Your task to perform on an android device: Go to Google maps Image 0: 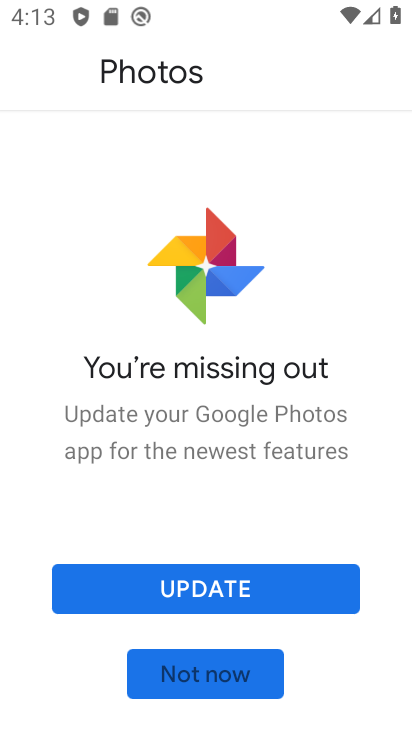
Step 0: press home button
Your task to perform on an android device: Go to Google maps Image 1: 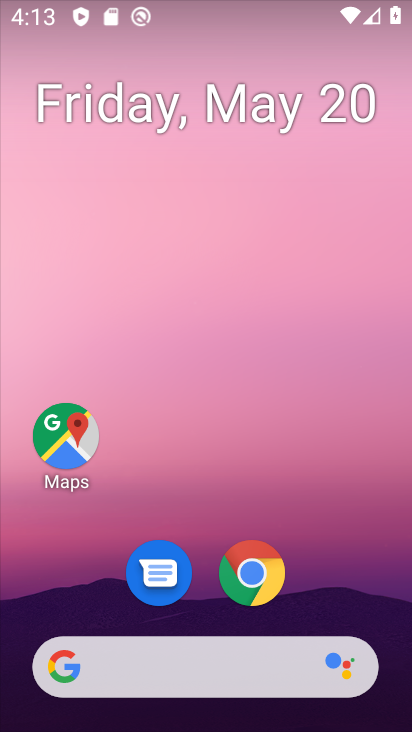
Step 1: click (90, 457)
Your task to perform on an android device: Go to Google maps Image 2: 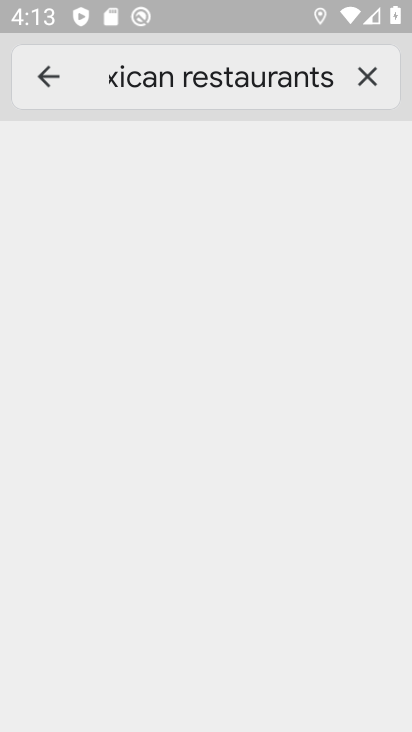
Step 2: task complete